Your task to perform on an android device: show emergency info Image 0: 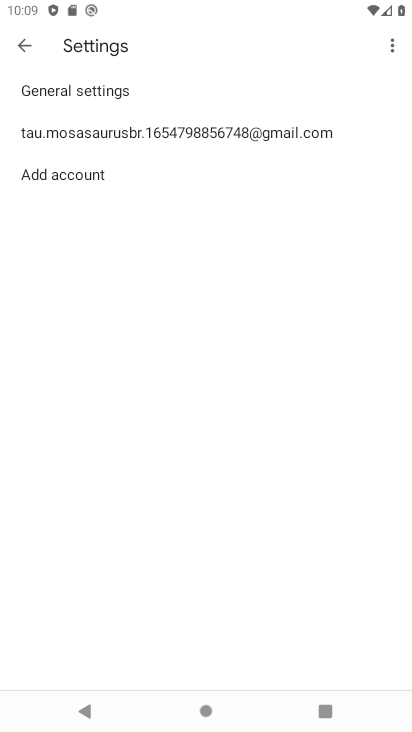
Step 0: press home button
Your task to perform on an android device: show emergency info Image 1: 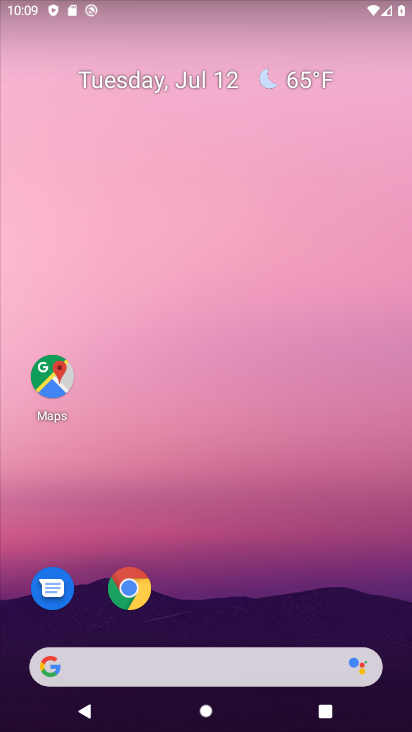
Step 1: drag from (28, 688) to (322, 0)
Your task to perform on an android device: show emergency info Image 2: 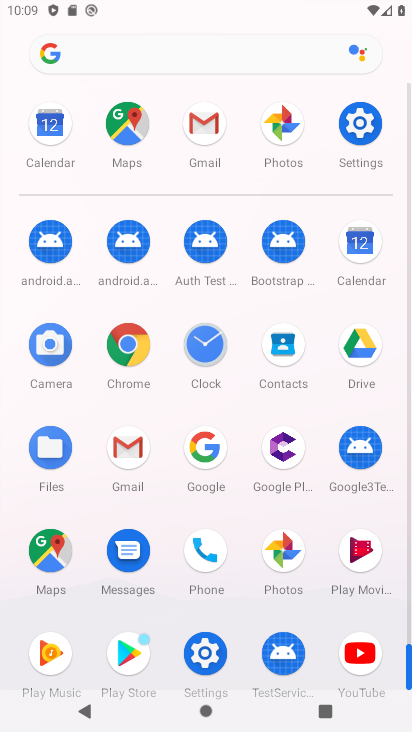
Step 2: click (184, 650)
Your task to perform on an android device: show emergency info Image 3: 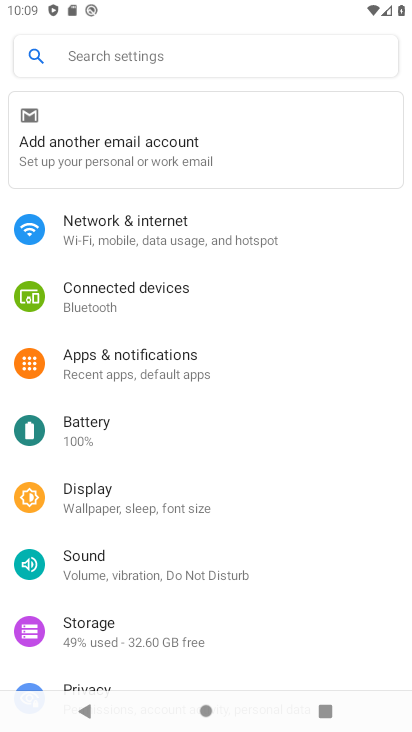
Step 3: click (118, 361)
Your task to perform on an android device: show emergency info Image 4: 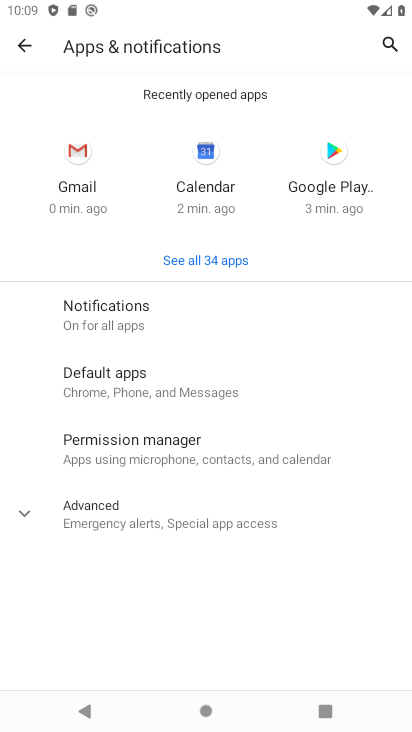
Step 4: click (105, 528)
Your task to perform on an android device: show emergency info Image 5: 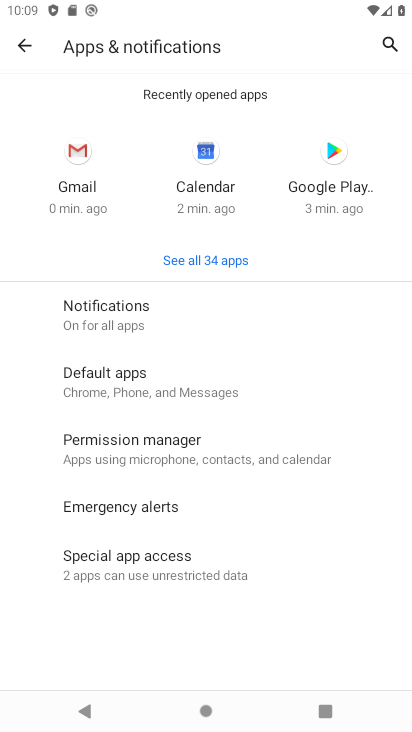
Step 5: click (116, 505)
Your task to perform on an android device: show emergency info Image 6: 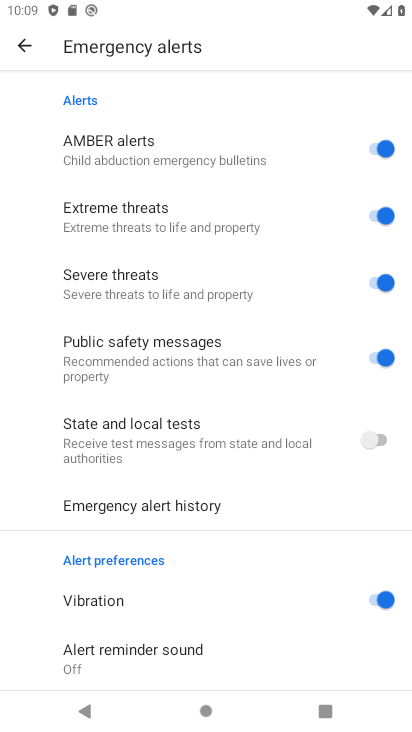
Step 6: task complete